Your task to perform on an android device: change the clock display to analog Image 0: 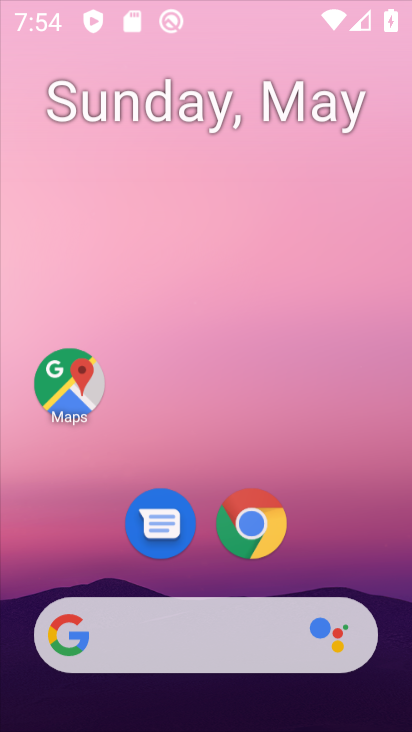
Step 0: drag from (363, 177) to (360, 237)
Your task to perform on an android device: change the clock display to analog Image 1: 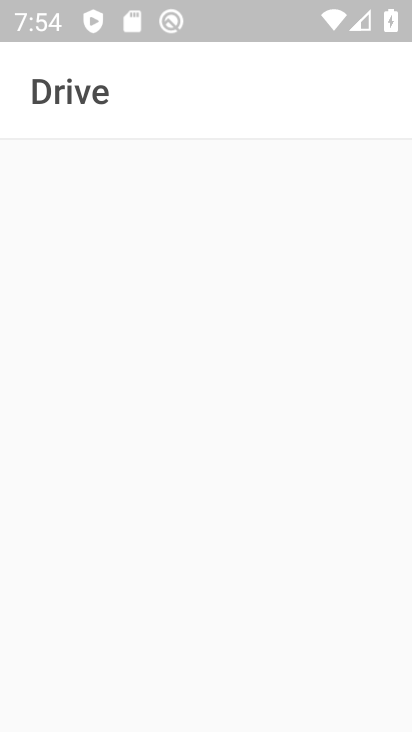
Step 1: press home button
Your task to perform on an android device: change the clock display to analog Image 2: 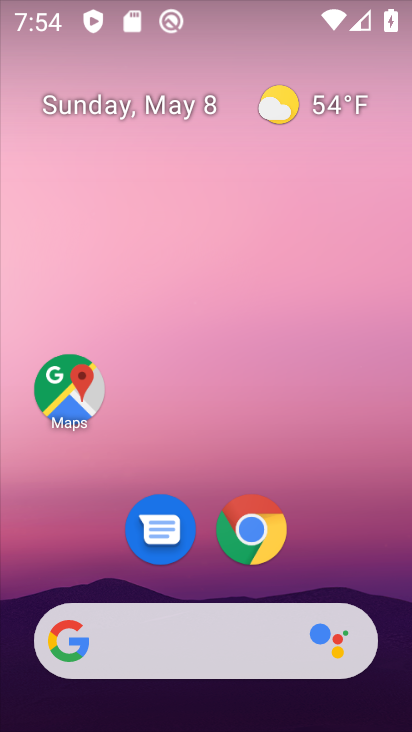
Step 2: drag from (367, 569) to (365, 203)
Your task to perform on an android device: change the clock display to analog Image 3: 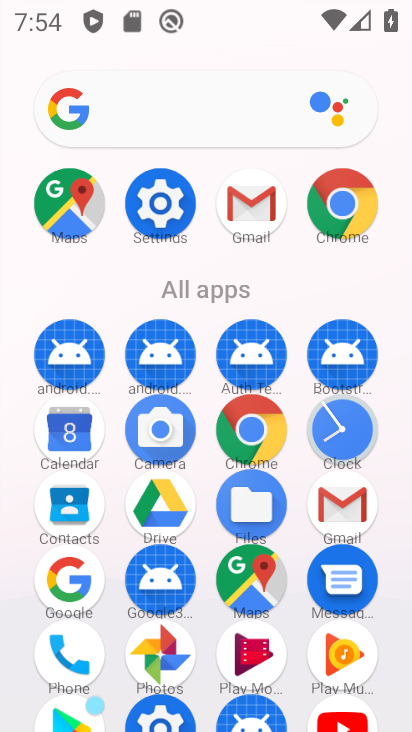
Step 3: click (350, 437)
Your task to perform on an android device: change the clock display to analog Image 4: 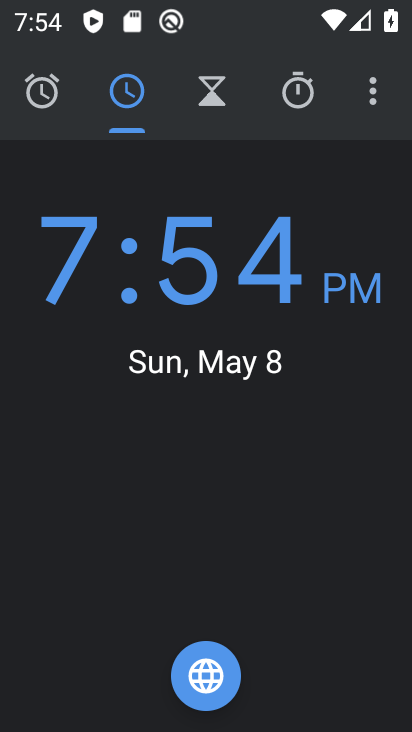
Step 4: click (386, 92)
Your task to perform on an android device: change the clock display to analog Image 5: 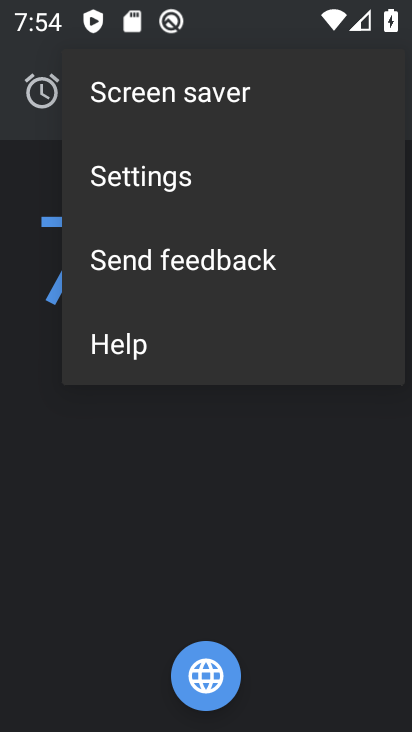
Step 5: click (185, 181)
Your task to perform on an android device: change the clock display to analog Image 6: 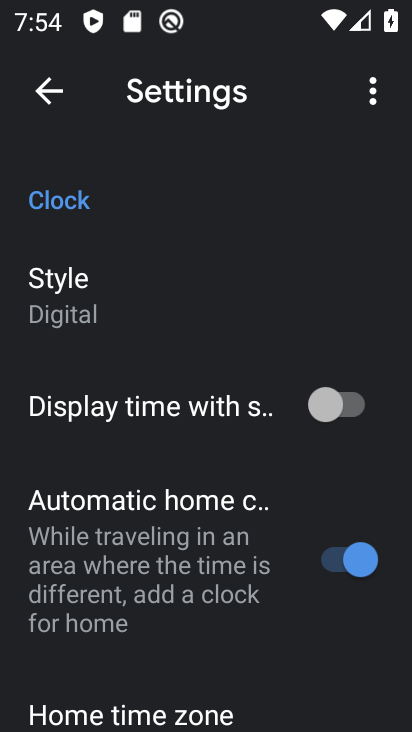
Step 6: click (93, 310)
Your task to perform on an android device: change the clock display to analog Image 7: 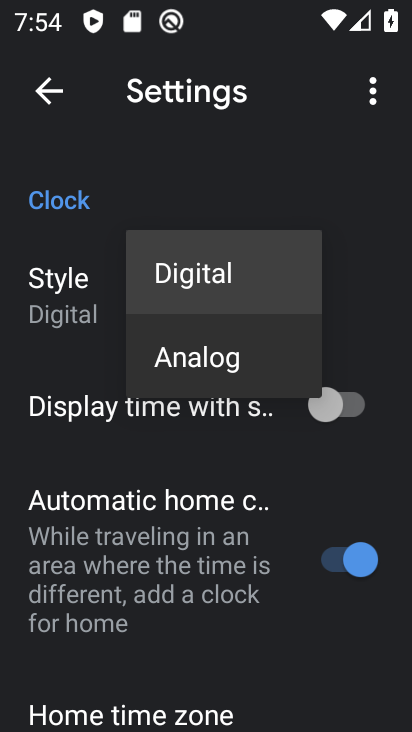
Step 7: click (184, 370)
Your task to perform on an android device: change the clock display to analog Image 8: 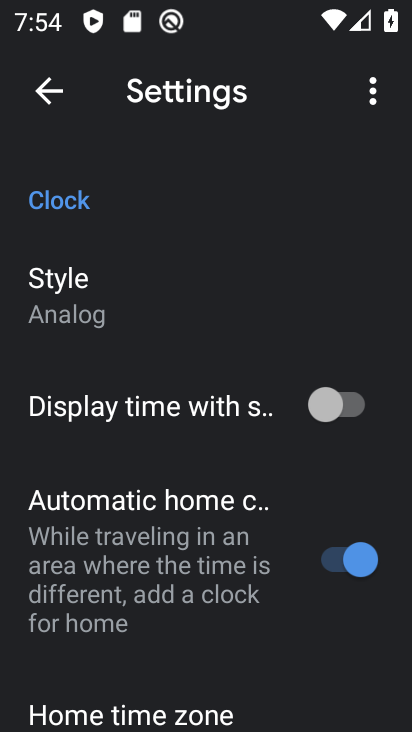
Step 8: task complete